Your task to perform on an android device: turn smart compose on in the gmail app Image 0: 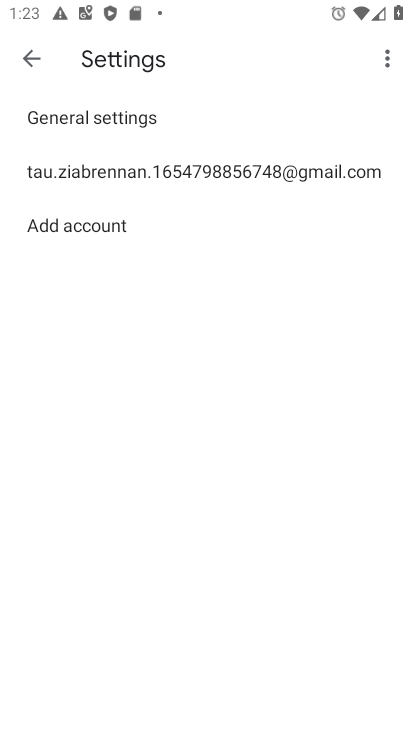
Step 0: press home button
Your task to perform on an android device: turn smart compose on in the gmail app Image 1: 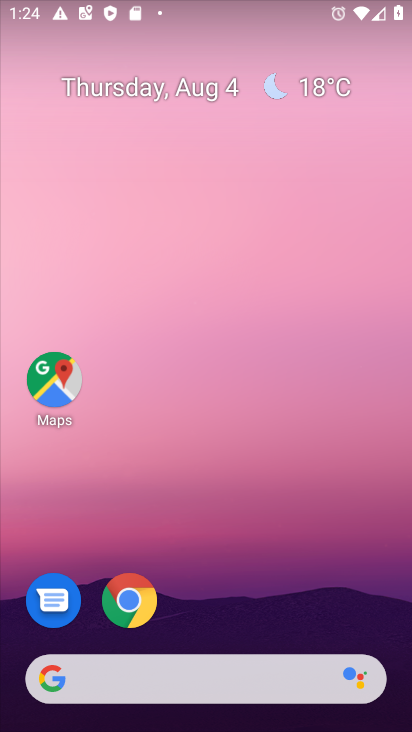
Step 1: drag from (178, 675) to (290, 100)
Your task to perform on an android device: turn smart compose on in the gmail app Image 2: 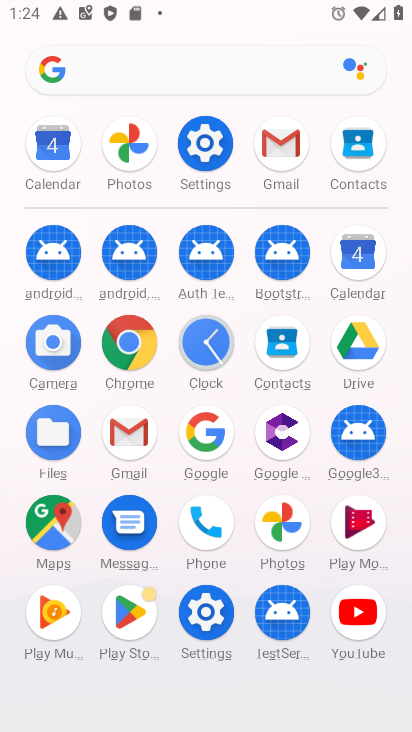
Step 2: click (285, 149)
Your task to perform on an android device: turn smart compose on in the gmail app Image 3: 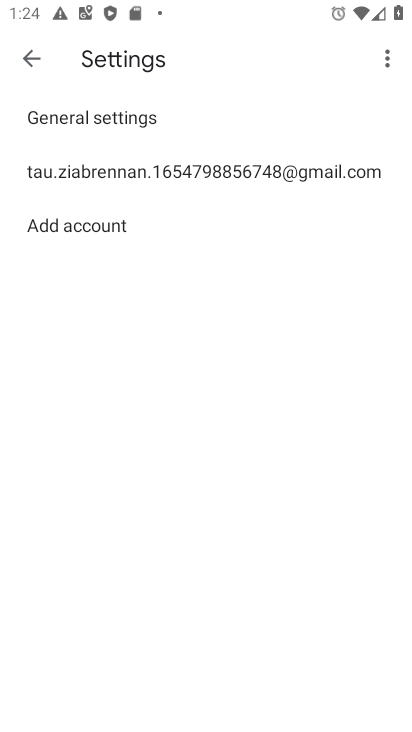
Step 3: click (269, 167)
Your task to perform on an android device: turn smart compose on in the gmail app Image 4: 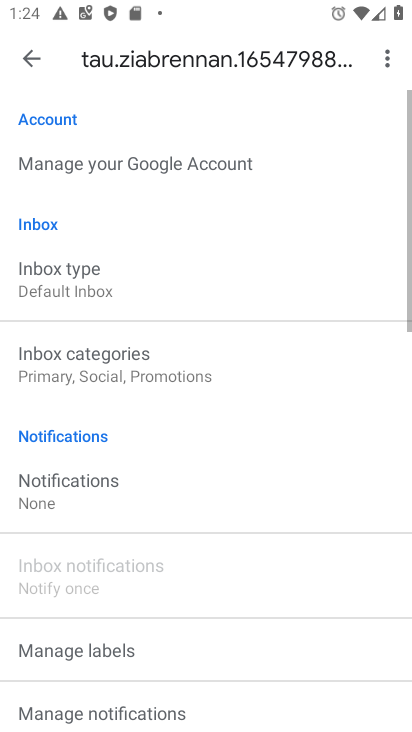
Step 4: task complete